Your task to perform on an android device: change timer sound Image 0: 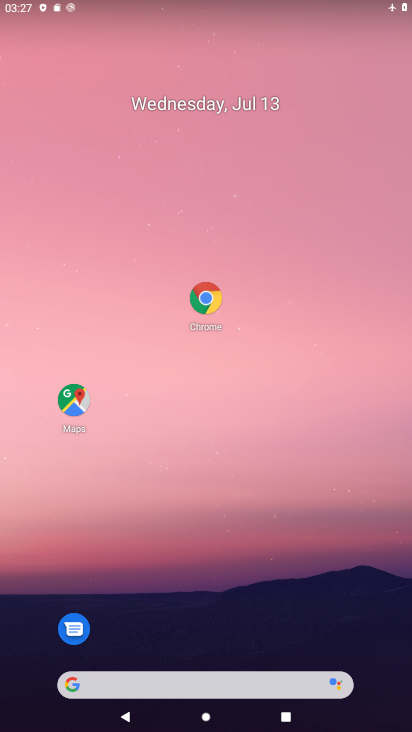
Step 0: drag from (187, 635) to (220, 185)
Your task to perform on an android device: change timer sound Image 1: 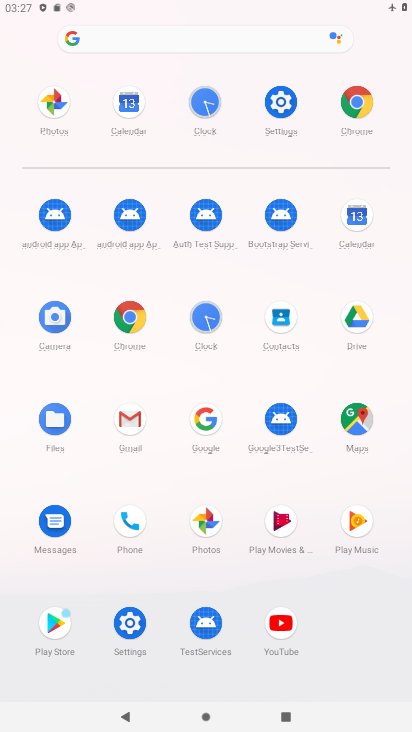
Step 1: click (218, 314)
Your task to perform on an android device: change timer sound Image 2: 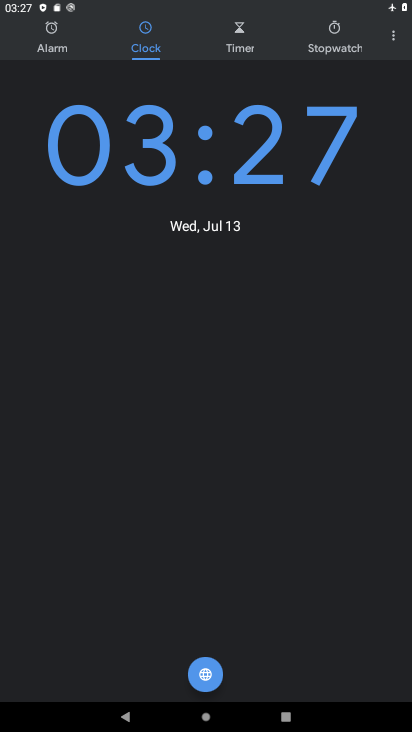
Step 2: click (398, 30)
Your task to perform on an android device: change timer sound Image 3: 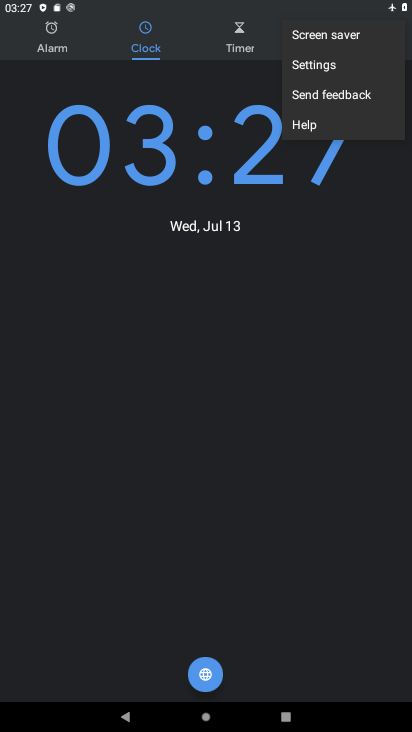
Step 3: click (332, 69)
Your task to perform on an android device: change timer sound Image 4: 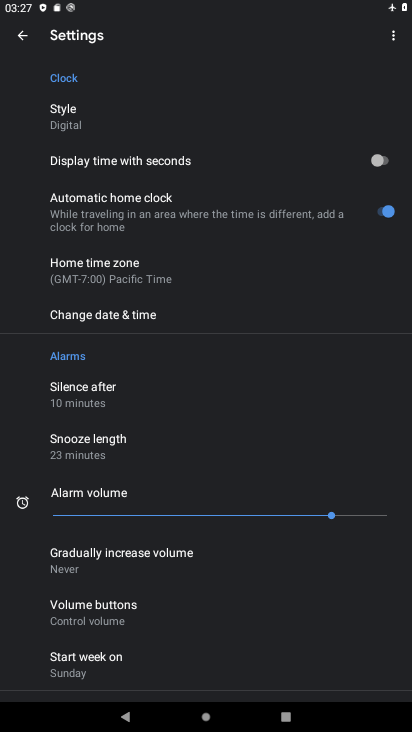
Step 4: drag from (148, 493) to (186, 224)
Your task to perform on an android device: change timer sound Image 5: 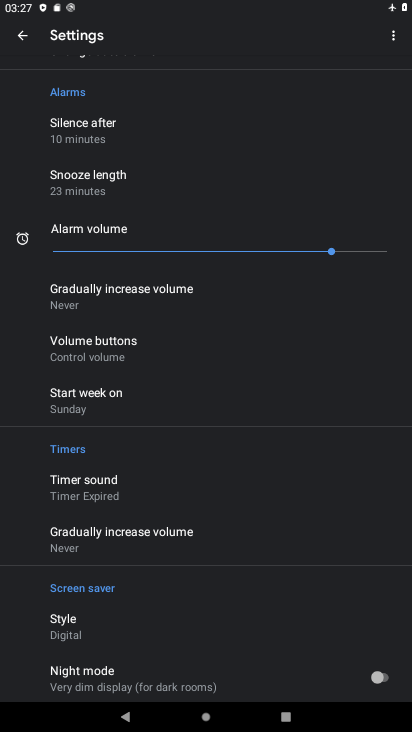
Step 5: click (64, 482)
Your task to perform on an android device: change timer sound Image 6: 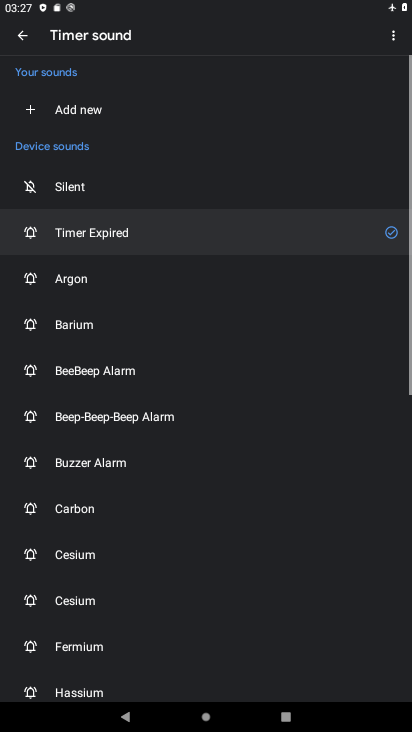
Step 6: click (78, 551)
Your task to perform on an android device: change timer sound Image 7: 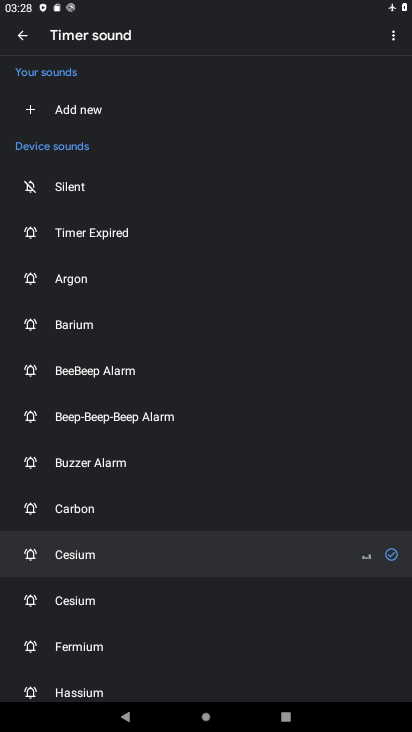
Step 7: task complete